Your task to perform on an android device: delete location history Image 0: 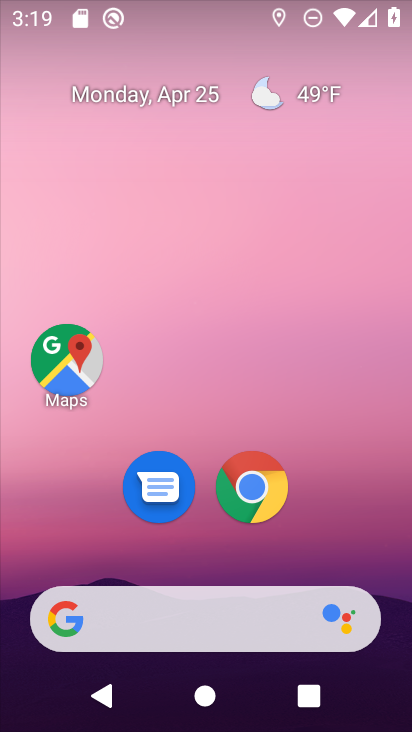
Step 0: click (71, 359)
Your task to perform on an android device: delete location history Image 1: 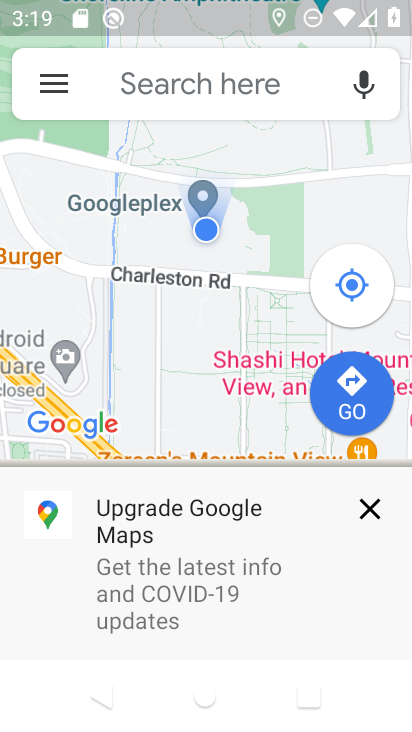
Step 1: click (55, 85)
Your task to perform on an android device: delete location history Image 2: 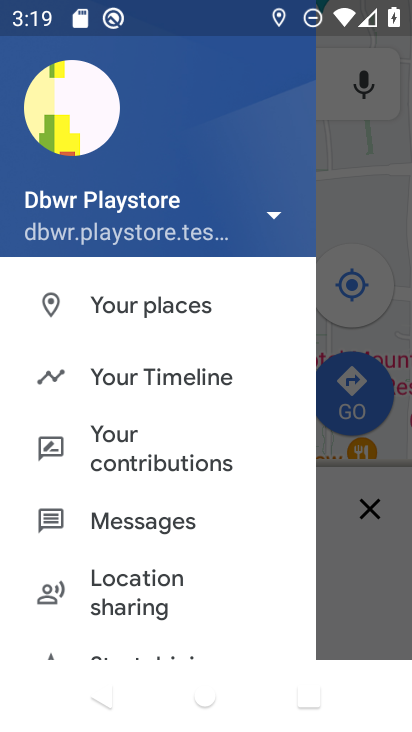
Step 2: click (148, 379)
Your task to perform on an android device: delete location history Image 3: 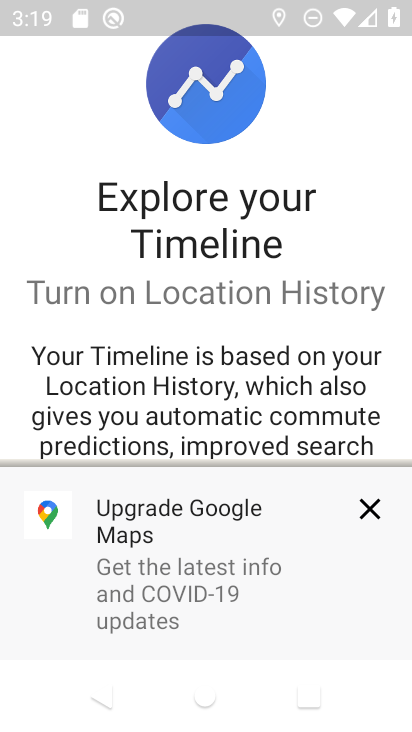
Step 3: click (372, 512)
Your task to perform on an android device: delete location history Image 4: 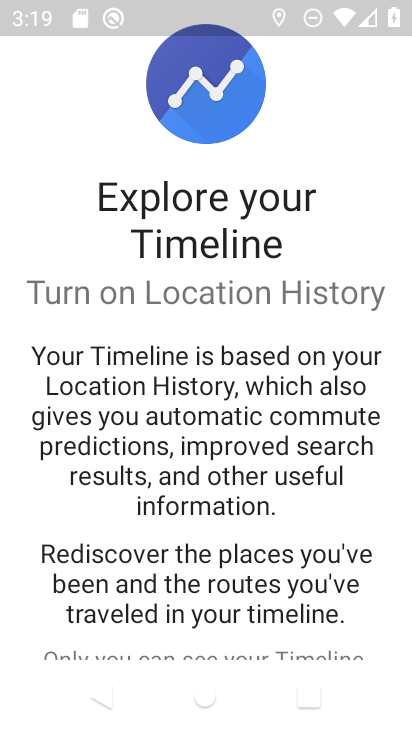
Step 4: drag from (245, 607) to (236, 193)
Your task to perform on an android device: delete location history Image 5: 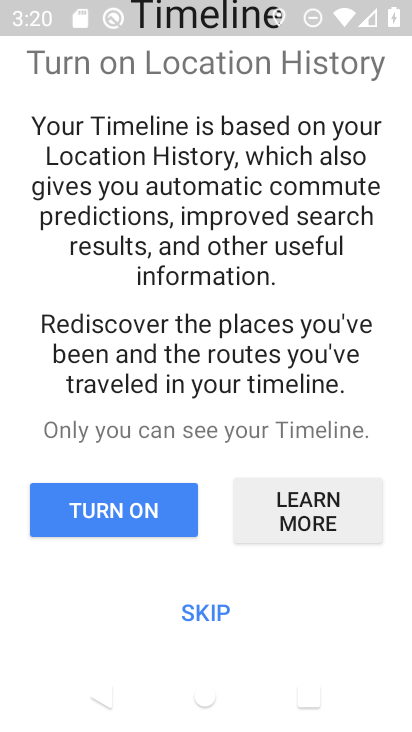
Step 5: click (194, 611)
Your task to perform on an android device: delete location history Image 6: 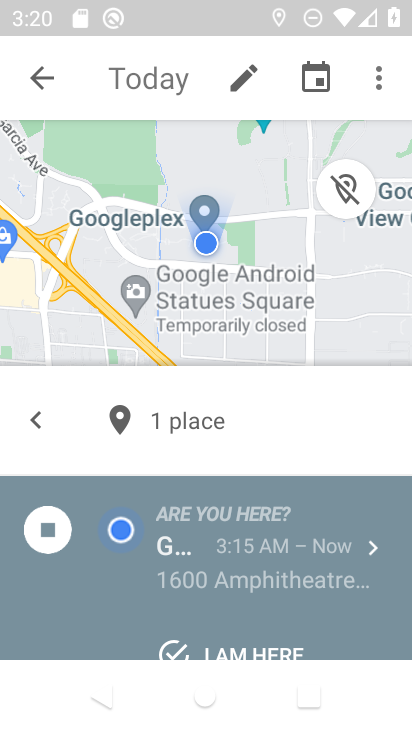
Step 6: click (380, 80)
Your task to perform on an android device: delete location history Image 7: 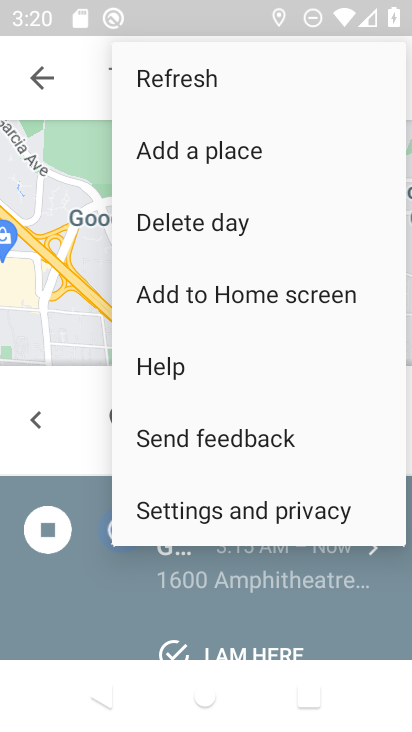
Step 7: click (191, 517)
Your task to perform on an android device: delete location history Image 8: 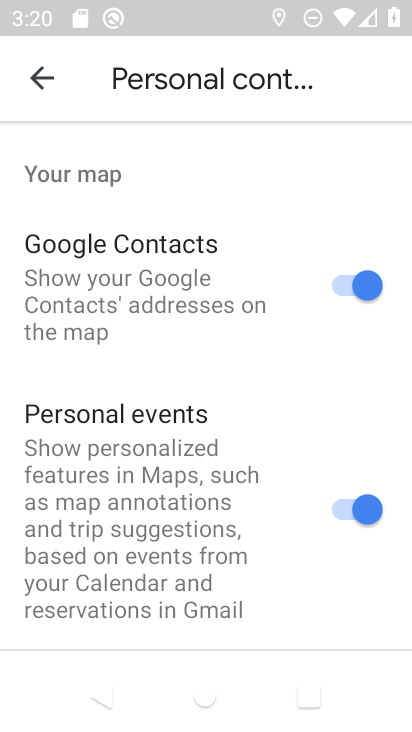
Step 8: drag from (128, 561) to (124, 114)
Your task to perform on an android device: delete location history Image 9: 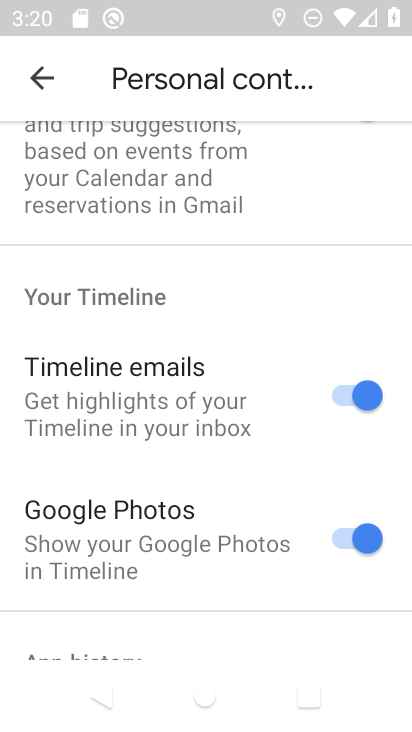
Step 9: drag from (152, 473) to (175, 125)
Your task to perform on an android device: delete location history Image 10: 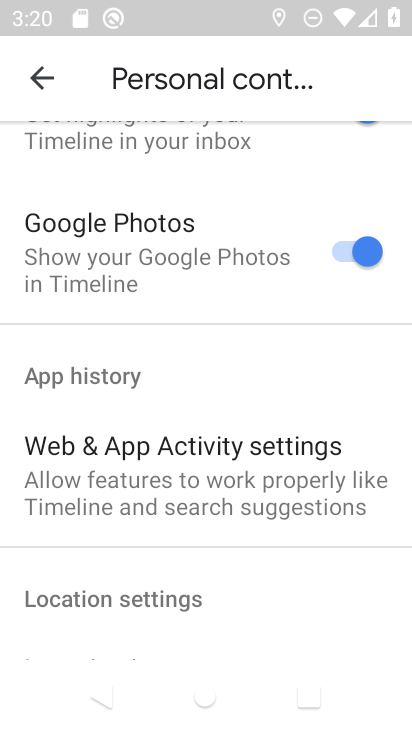
Step 10: drag from (177, 435) to (205, 92)
Your task to perform on an android device: delete location history Image 11: 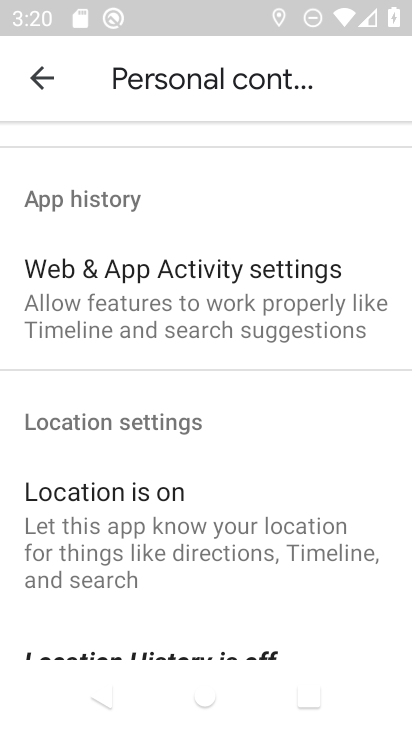
Step 11: drag from (186, 464) to (192, 82)
Your task to perform on an android device: delete location history Image 12: 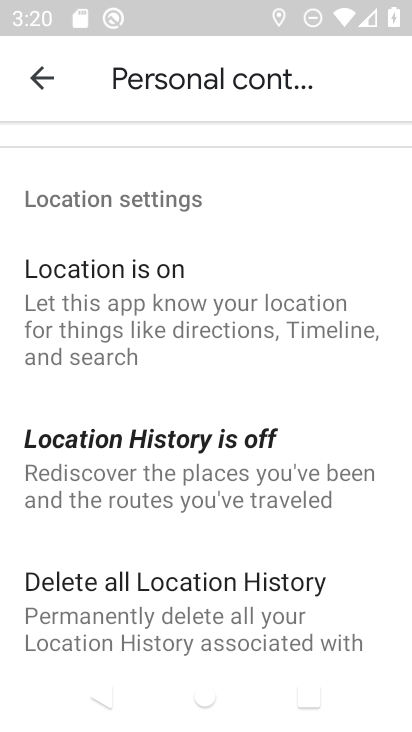
Step 12: click (155, 618)
Your task to perform on an android device: delete location history Image 13: 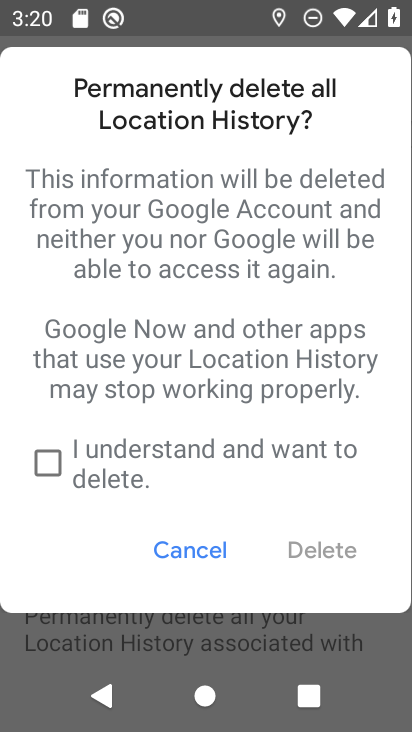
Step 13: click (51, 449)
Your task to perform on an android device: delete location history Image 14: 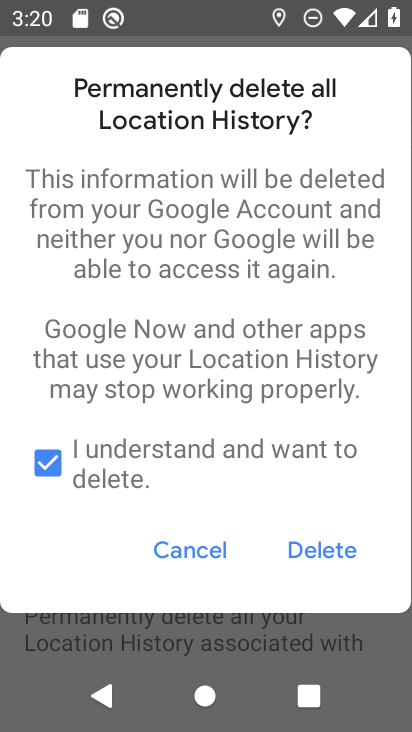
Step 14: click (324, 551)
Your task to perform on an android device: delete location history Image 15: 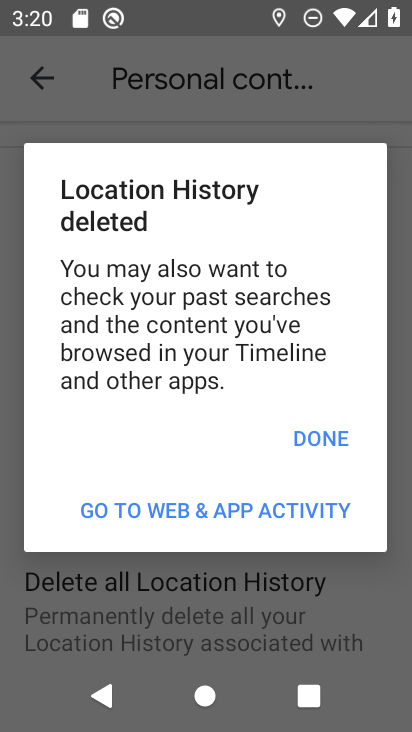
Step 15: click (337, 449)
Your task to perform on an android device: delete location history Image 16: 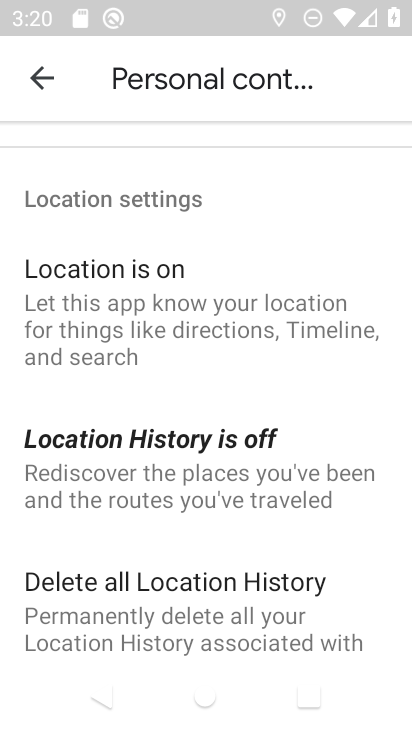
Step 16: task complete